Your task to perform on an android device: Open Reddit.com Image 0: 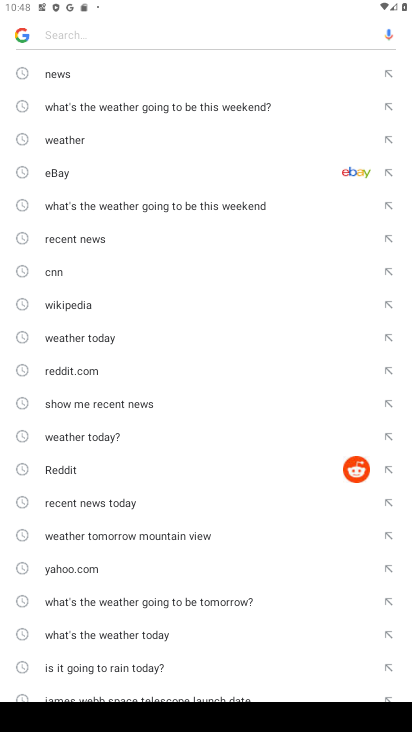
Step 0: click (278, 472)
Your task to perform on an android device: Open Reddit.com Image 1: 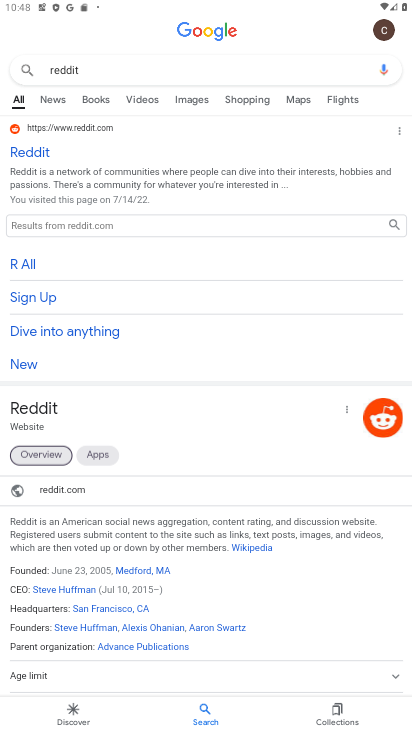
Step 1: click (43, 147)
Your task to perform on an android device: Open Reddit.com Image 2: 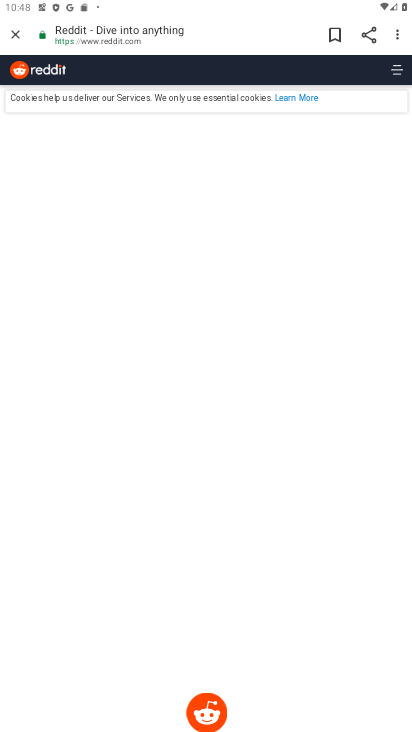
Step 2: task complete